Your task to perform on an android device: View the shopping cart on costco.com. Add "amazon basics triple a" to the cart on costco.com Image 0: 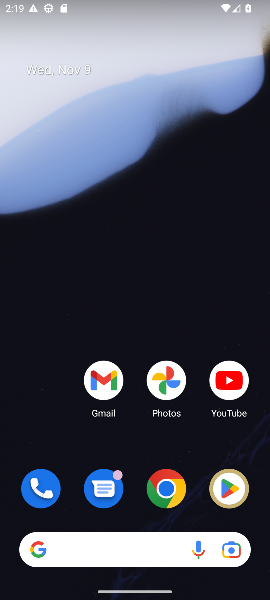
Step 0: press home button
Your task to perform on an android device: View the shopping cart on costco.com. Add "amazon basics triple a" to the cart on costco.com Image 1: 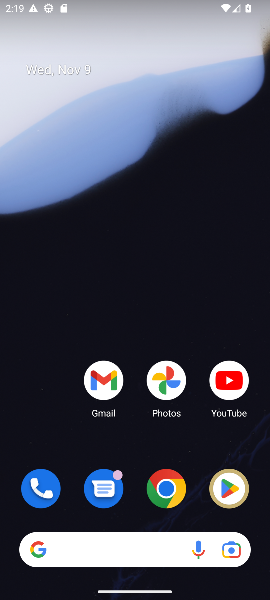
Step 1: drag from (143, 456) to (178, 75)
Your task to perform on an android device: View the shopping cart on costco.com. Add "amazon basics triple a" to the cart on costco.com Image 2: 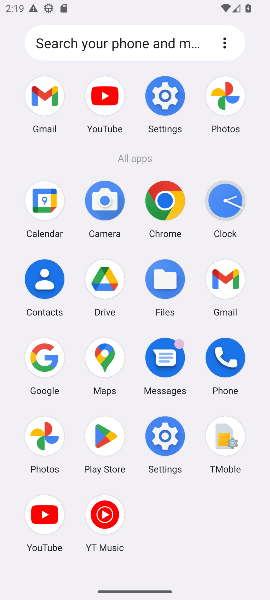
Step 2: click (168, 192)
Your task to perform on an android device: View the shopping cart on costco.com. Add "amazon basics triple a" to the cart on costco.com Image 3: 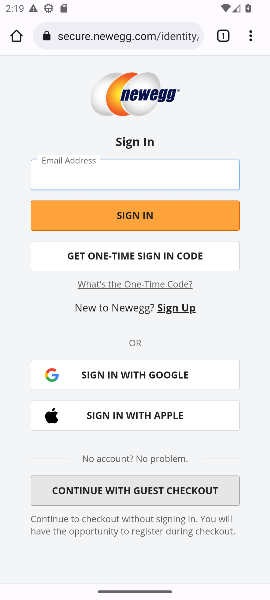
Step 3: click (131, 35)
Your task to perform on an android device: View the shopping cart on costco.com. Add "amazon basics triple a" to the cart on costco.com Image 4: 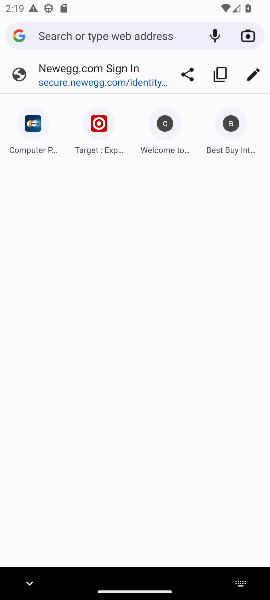
Step 4: type "costco.com"
Your task to perform on an android device: View the shopping cart on costco.com. Add "amazon basics triple a" to the cart on costco.com Image 5: 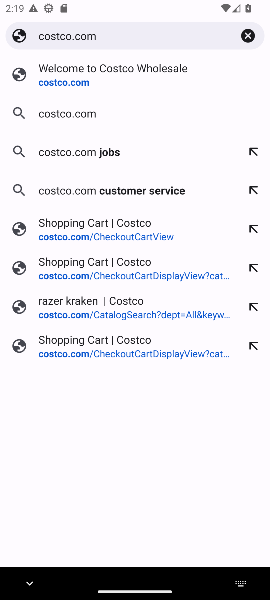
Step 5: press enter
Your task to perform on an android device: View the shopping cart on costco.com. Add "amazon basics triple a" to the cart on costco.com Image 6: 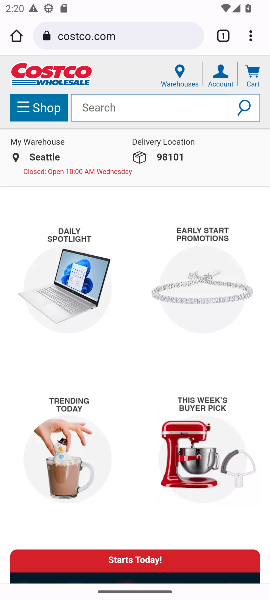
Step 6: click (183, 111)
Your task to perform on an android device: View the shopping cart on costco.com. Add "amazon basics triple a" to the cart on costco.com Image 7: 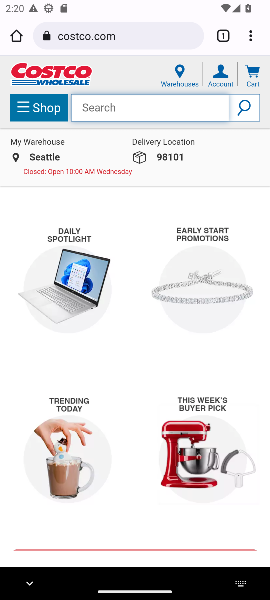
Step 7: type "amazon basics triple a"
Your task to perform on an android device: View the shopping cart on costco.com. Add "amazon basics triple a" to the cart on costco.com Image 8: 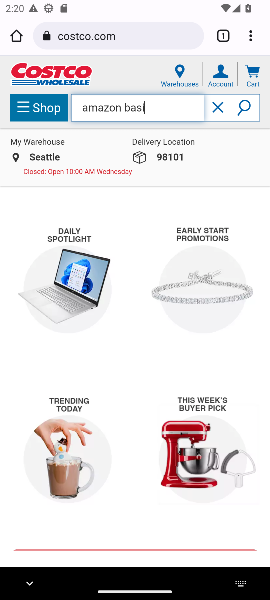
Step 8: press enter
Your task to perform on an android device: View the shopping cart on costco.com. Add "amazon basics triple a" to the cart on costco.com Image 9: 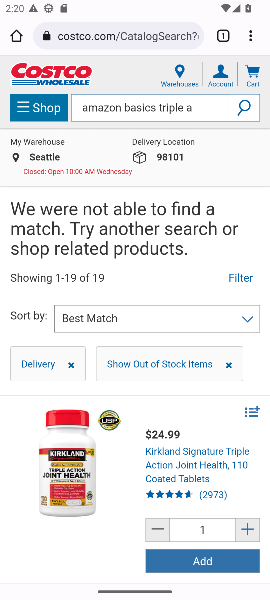
Step 9: task complete